Your task to perform on an android device: check storage Image 0: 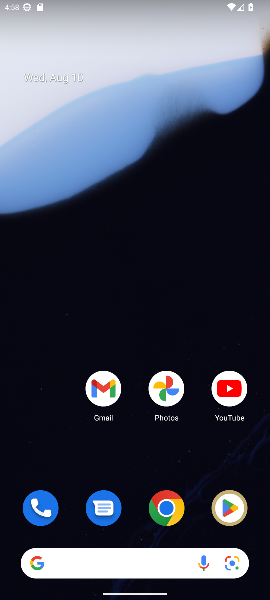
Step 0: press home button
Your task to perform on an android device: check storage Image 1: 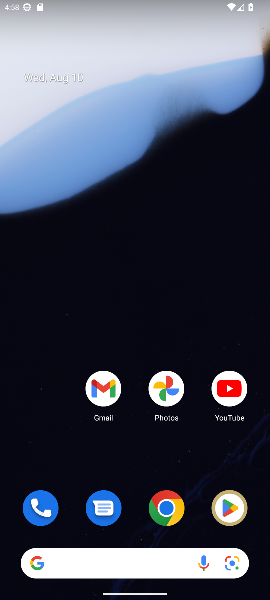
Step 1: drag from (136, 526) to (153, 100)
Your task to perform on an android device: check storage Image 2: 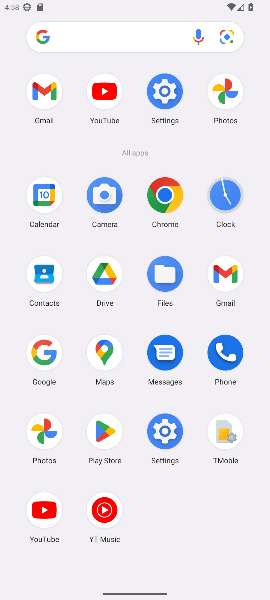
Step 2: click (168, 432)
Your task to perform on an android device: check storage Image 3: 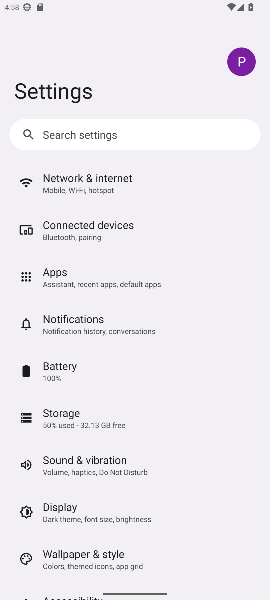
Step 3: click (64, 421)
Your task to perform on an android device: check storage Image 4: 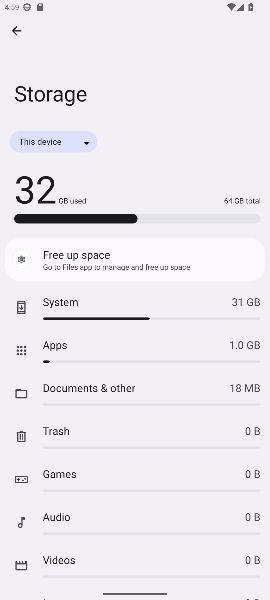
Step 4: task complete